Your task to perform on an android device: Open maps Image 0: 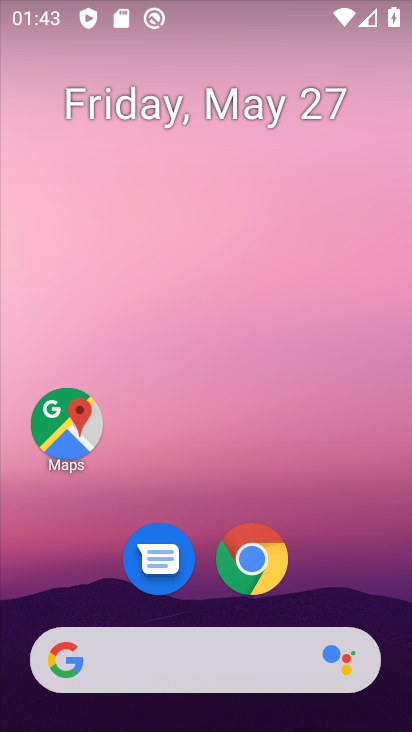
Step 0: click (79, 445)
Your task to perform on an android device: Open maps Image 1: 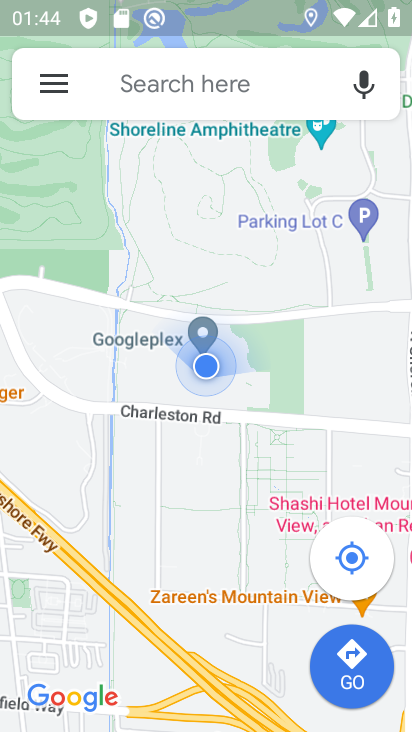
Step 1: task complete